Your task to perform on an android device: open a bookmark in the chrome app Image 0: 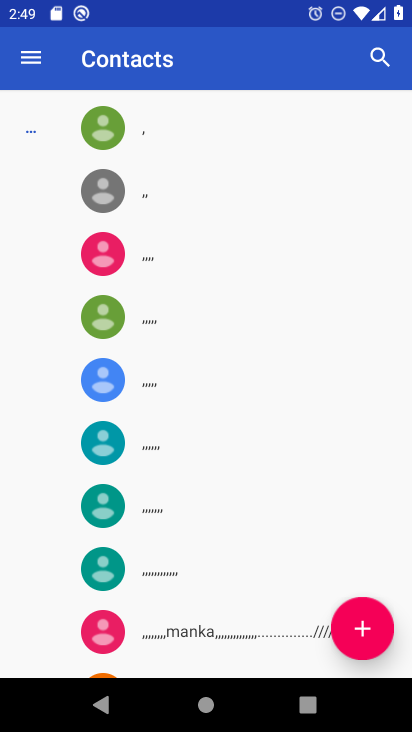
Step 0: press home button
Your task to perform on an android device: open a bookmark in the chrome app Image 1: 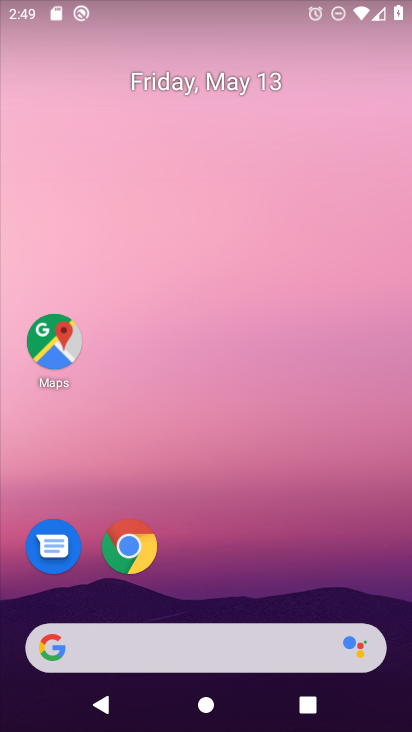
Step 1: click (140, 552)
Your task to perform on an android device: open a bookmark in the chrome app Image 2: 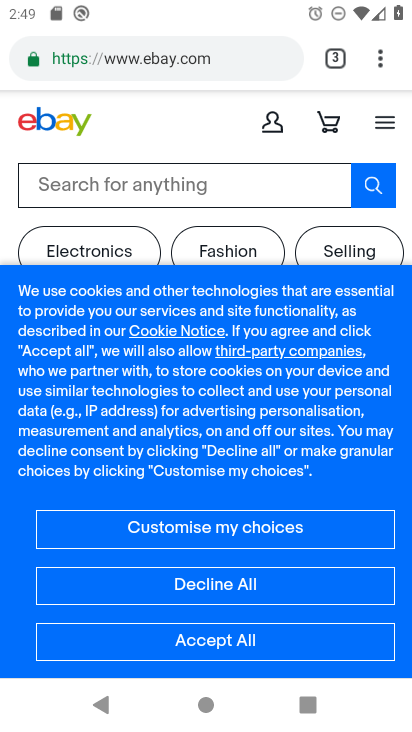
Step 2: task complete